Your task to perform on an android device: Is it going to rain this weekend? Image 0: 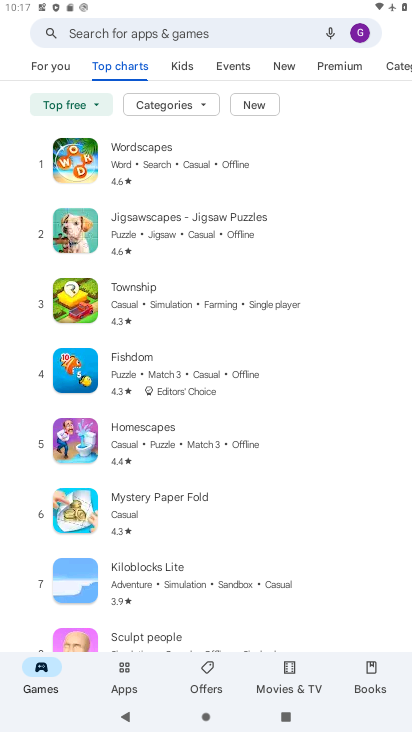
Step 0: press home button
Your task to perform on an android device: Is it going to rain this weekend? Image 1: 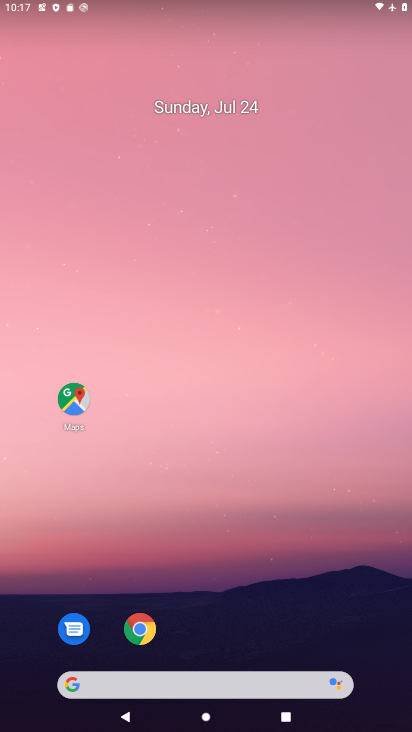
Step 1: click (188, 720)
Your task to perform on an android device: Is it going to rain this weekend? Image 2: 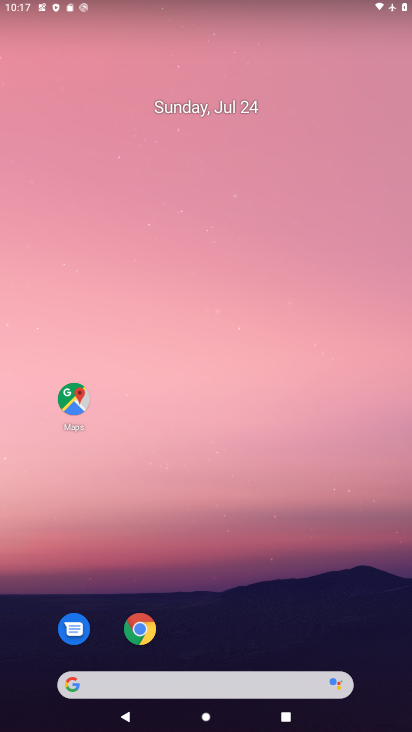
Step 2: click (208, 693)
Your task to perform on an android device: Is it going to rain this weekend? Image 3: 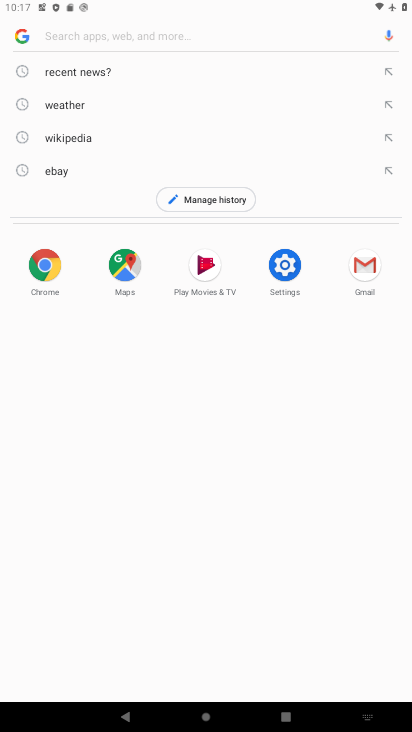
Step 3: click (210, 79)
Your task to perform on an android device: Is it going to rain this weekend? Image 4: 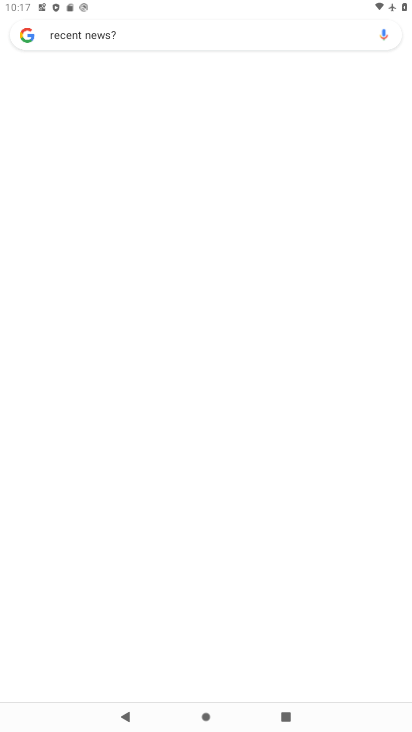
Step 4: task complete